Your task to perform on an android device: delete the emails in spam in the gmail app Image 0: 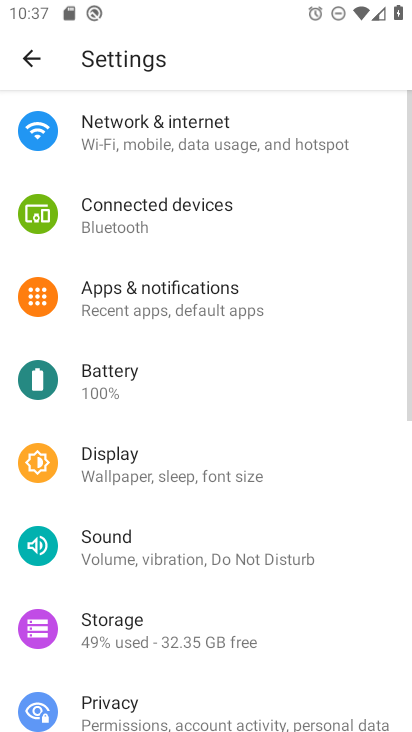
Step 0: press home button
Your task to perform on an android device: delete the emails in spam in the gmail app Image 1: 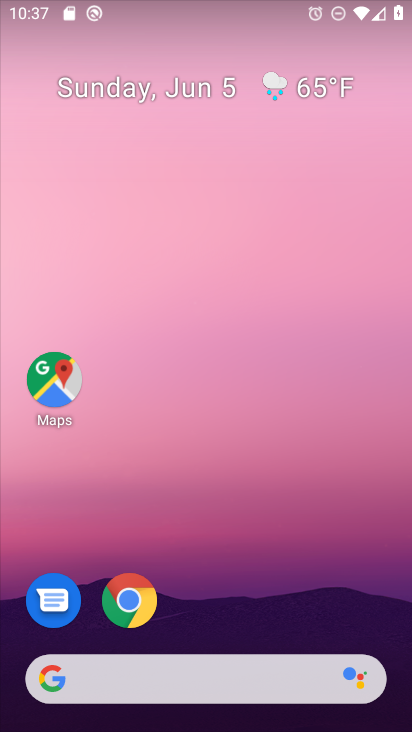
Step 1: drag from (400, 637) to (142, 0)
Your task to perform on an android device: delete the emails in spam in the gmail app Image 2: 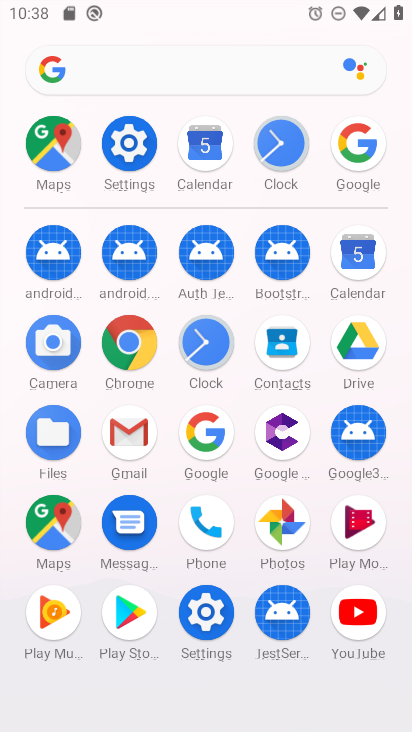
Step 2: click (118, 435)
Your task to perform on an android device: delete the emails in spam in the gmail app Image 3: 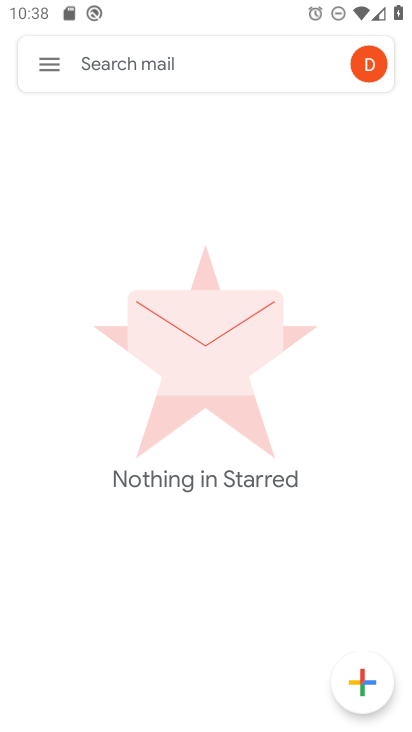
Step 3: click (36, 51)
Your task to perform on an android device: delete the emails in spam in the gmail app Image 4: 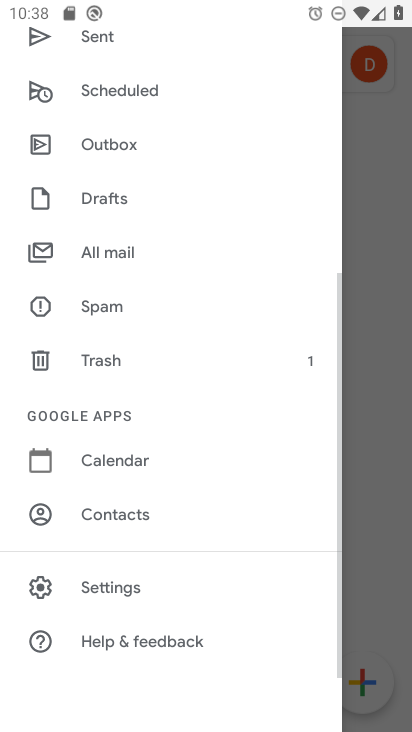
Step 4: click (129, 298)
Your task to perform on an android device: delete the emails in spam in the gmail app Image 5: 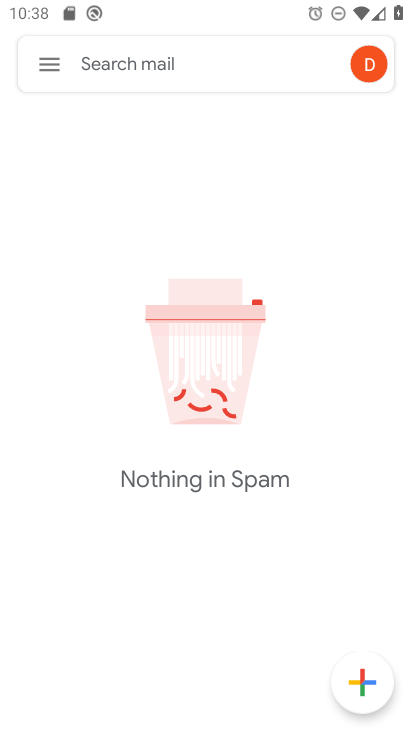
Step 5: task complete